Your task to perform on an android device: Go to network settings Image 0: 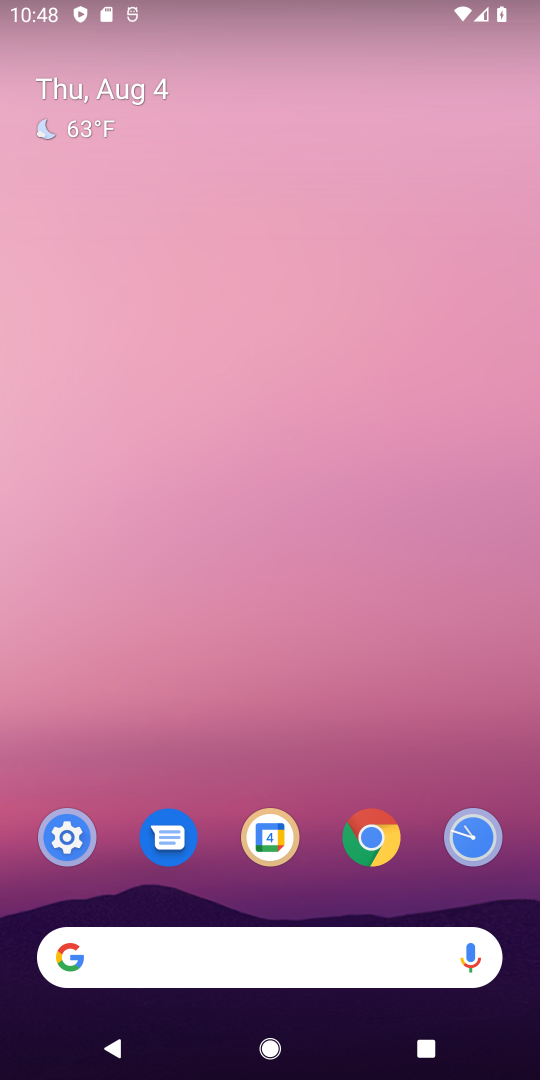
Step 0: press home button
Your task to perform on an android device: Go to network settings Image 1: 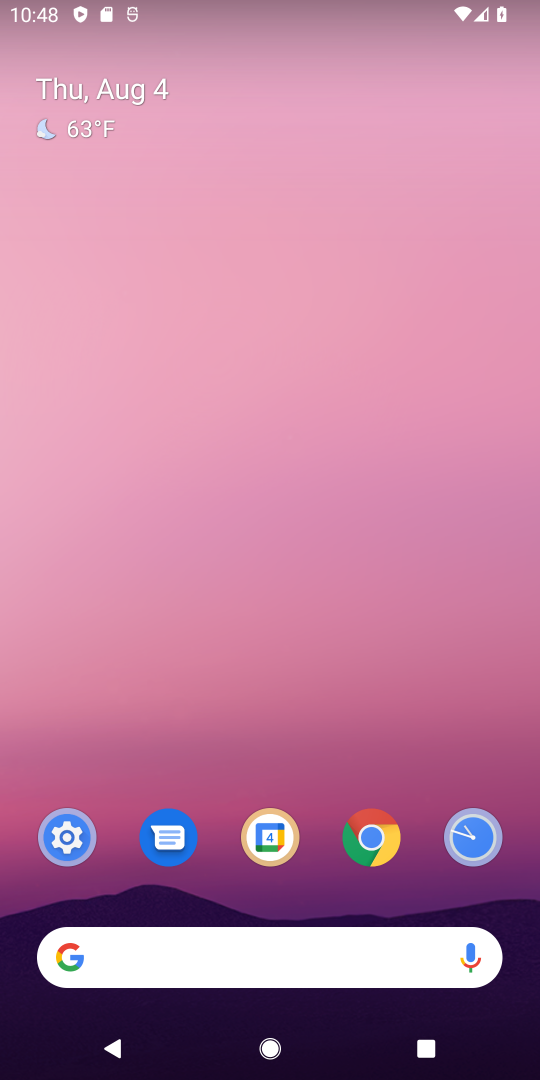
Step 1: drag from (325, 896) to (403, 109)
Your task to perform on an android device: Go to network settings Image 2: 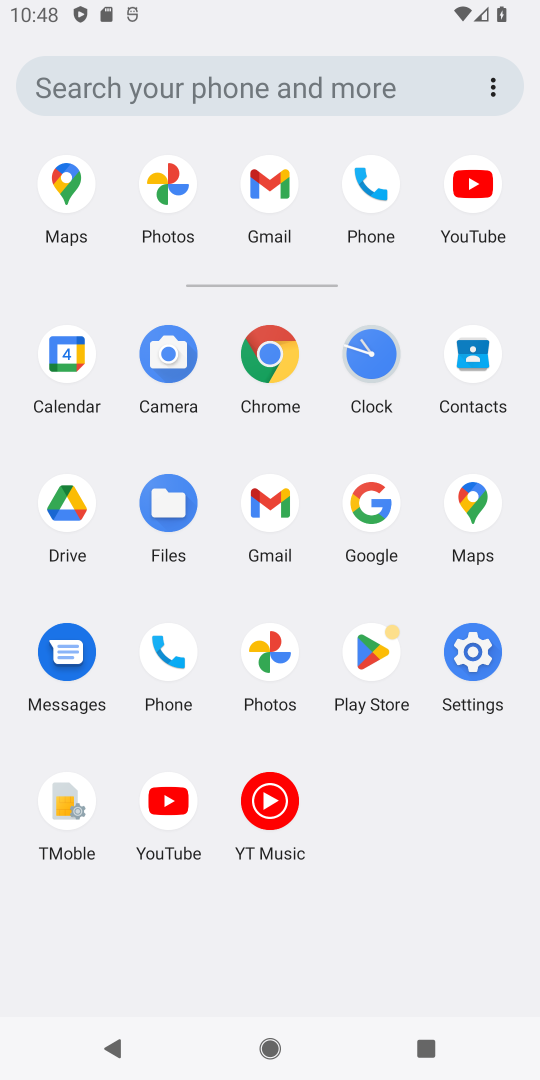
Step 2: click (473, 646)
Your task to perform on an android device: Go to network settings Image 3: 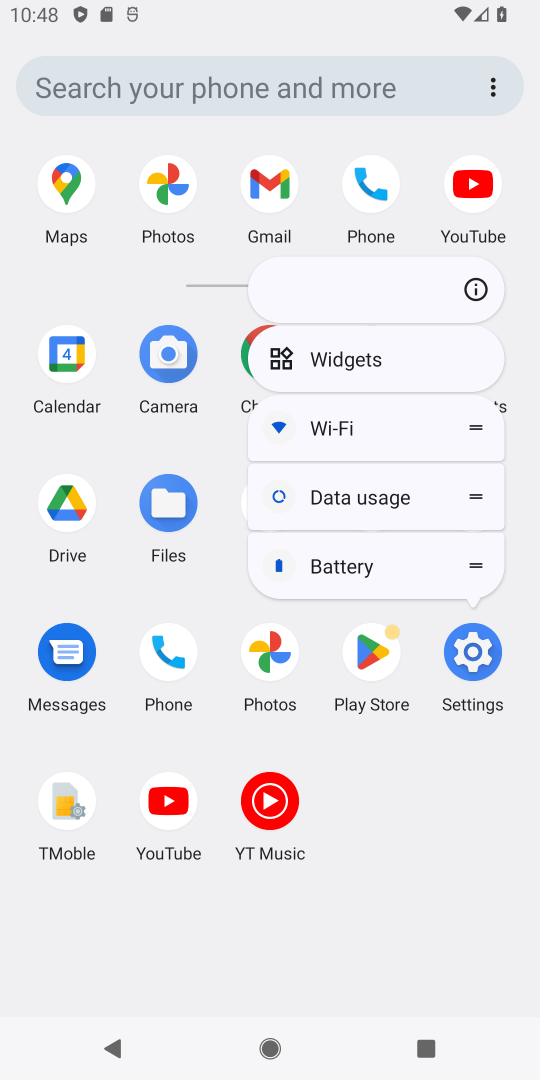
Step 3: click (479, 653)
Your task to perform on an android device: Go to network settings Image 4: 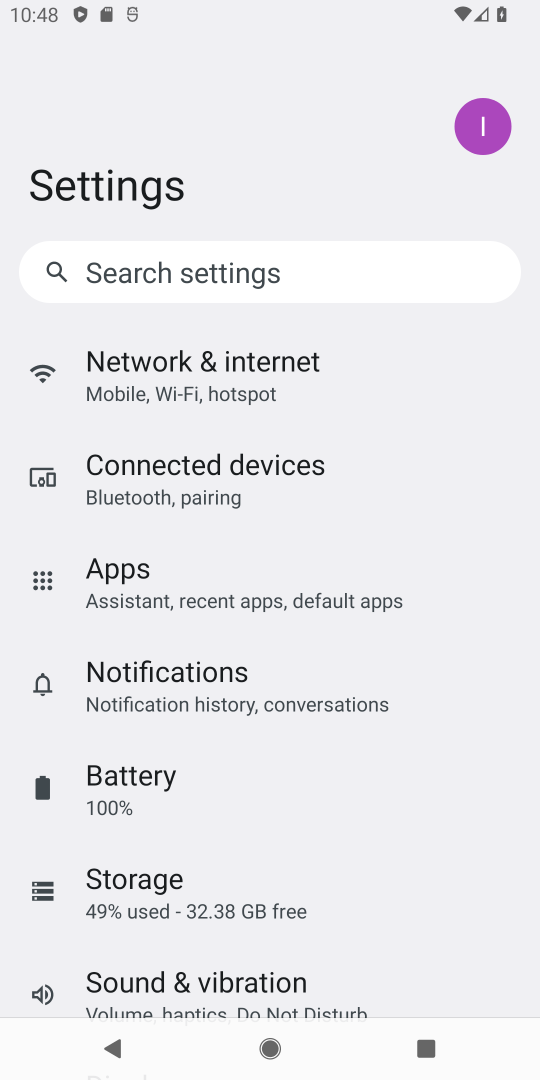
Step 4: click (227, 381)
Your task to perform on an android device: Go to network settings Image 5: 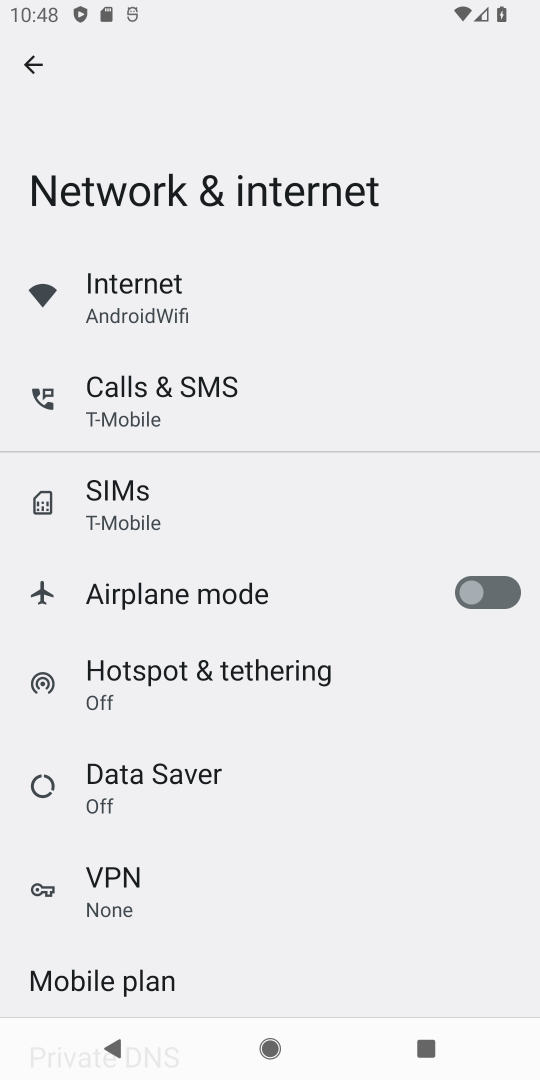
Step 5: task complete